Your task to perform on an android device: toggle improve location accuracy Image 0: 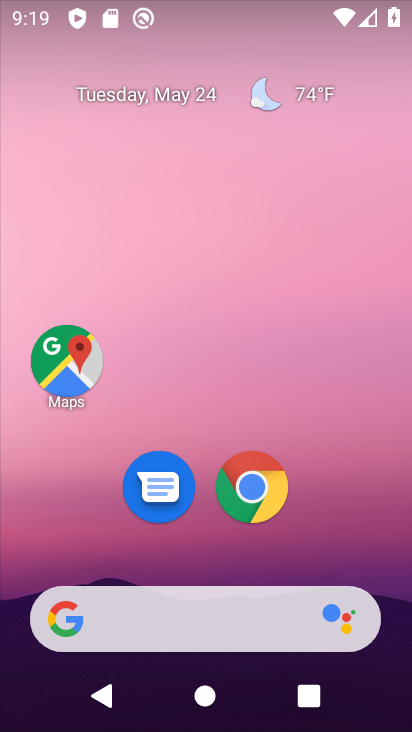
Step 0: drag from (368, 536) to (357, 0)
Your task to perform on an android device: toggle improve location accuracy Image 1: 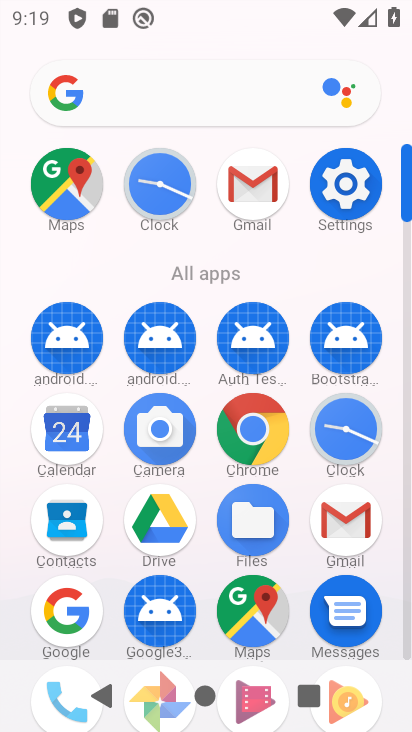
Step 1: click (342, 189)
Your task to perform on an android device: toggle improve location accuracy Image 2: 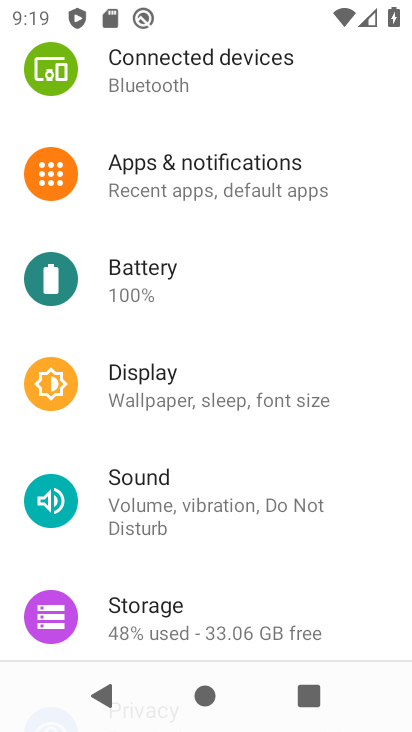
Step 2: drag from (294, 444) to (290, 75)
Your task to perform on an android device: toggle improve location accuracy Image 3: 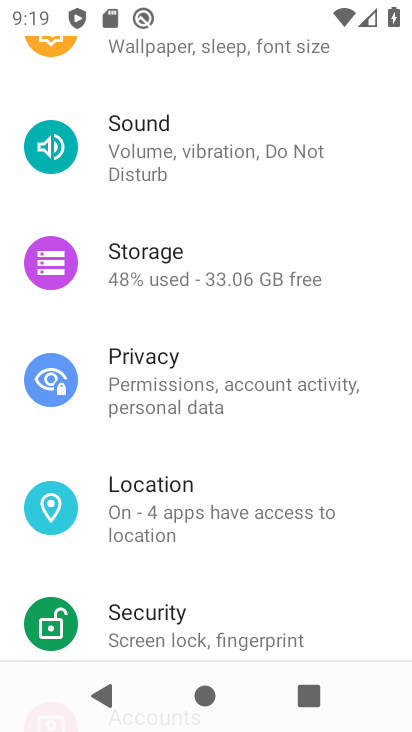
Step 3: click (131, 496)
Your task to perform on an android device: toggle improve location accuracy Image 4: 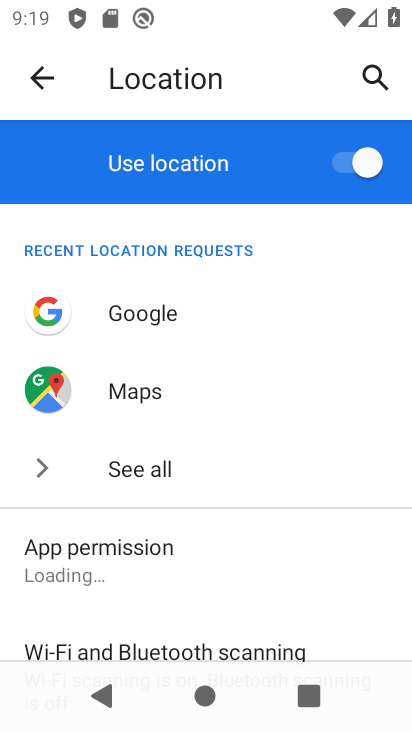
Step 4: drag from (203, 550) to (224, 186)
Your task to perform on an android device: toggle improve location accuracy Image 5: 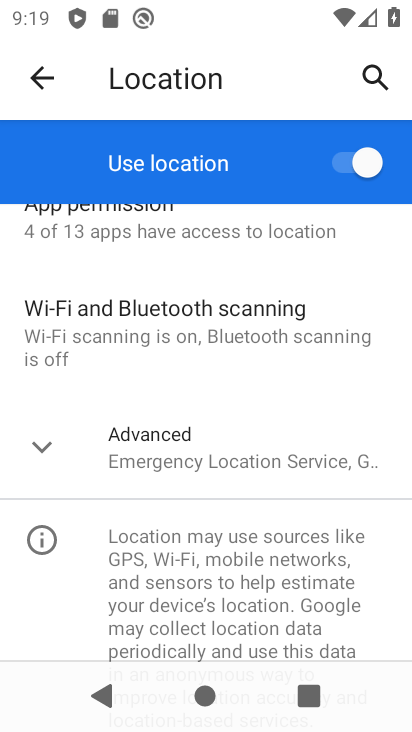
Step 5: click (38, 454)
Your task to perform on an android device: toggle improve location accuracy Image 6: 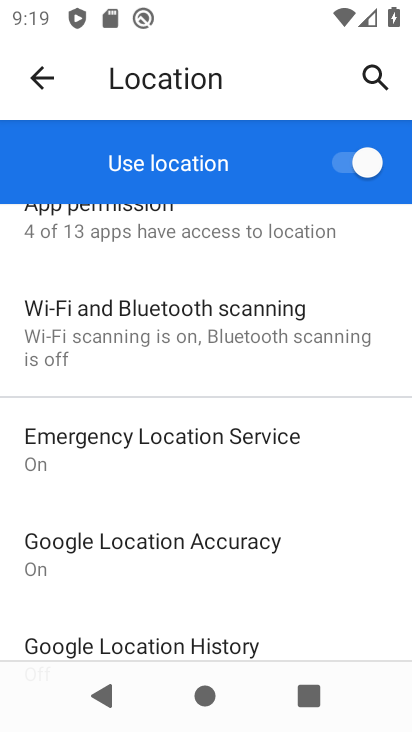
Step 6: click (125, 544)
Your task to perform on an android device: toggle improve location accuracy Image 7: 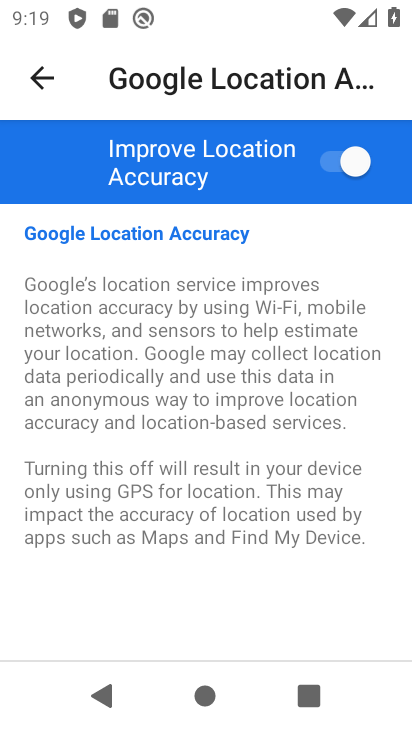
Step 7: click (356, 151)
Your task to perform on an android device: toggle improve location accuracy Image 8: 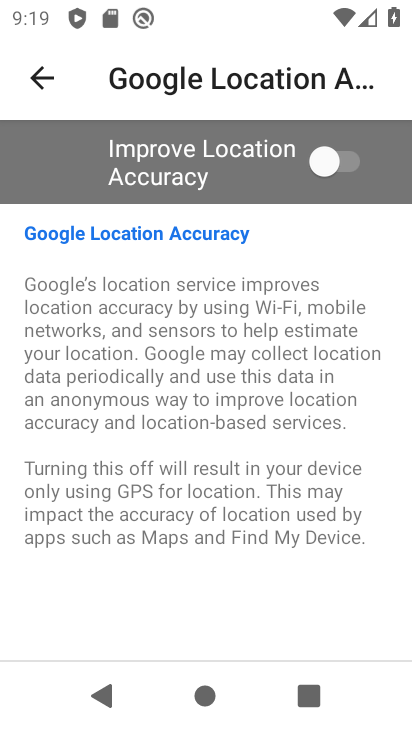
Step 8: task complete